Your task to perform on an android device: open a bookmark in the chrome app Image 0: 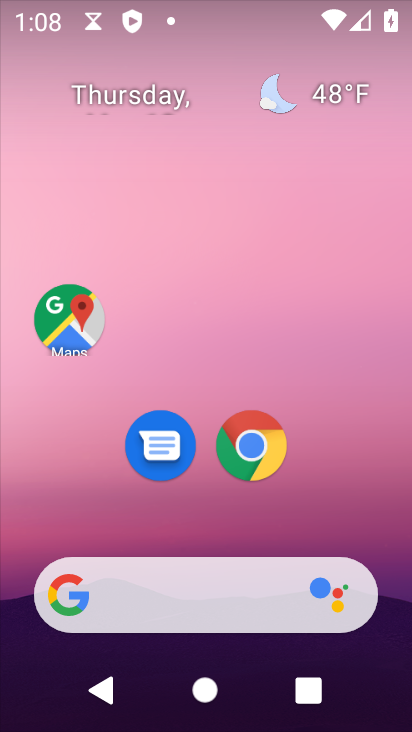
Step 0: click (252, 448)
Your task to perform on an android device: open a bookmark in the chrome app Image 1: 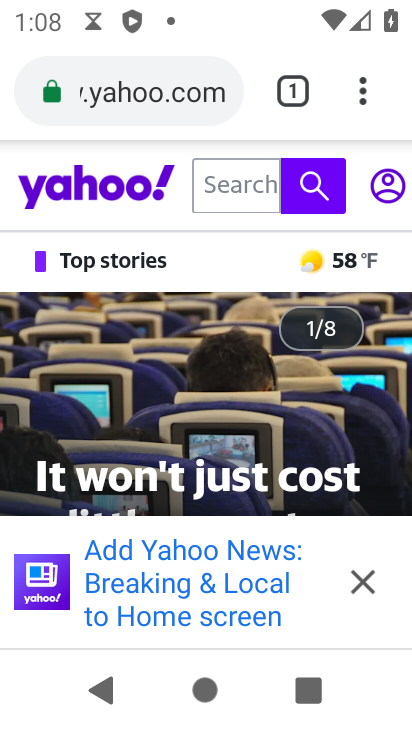
Step 1: click (365, 82)
Your task to perform on an android device: open a bookmark in the chrome app Image 2: 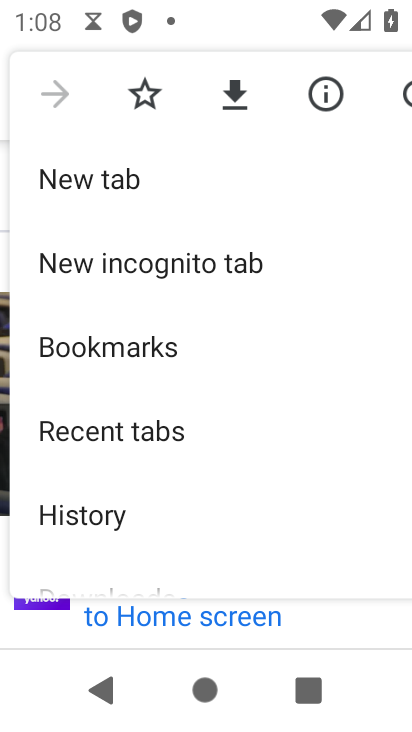
Step 2: click (155, 352)
Your task to perform on an android device: open a bookmark in the chrome app Image 3: 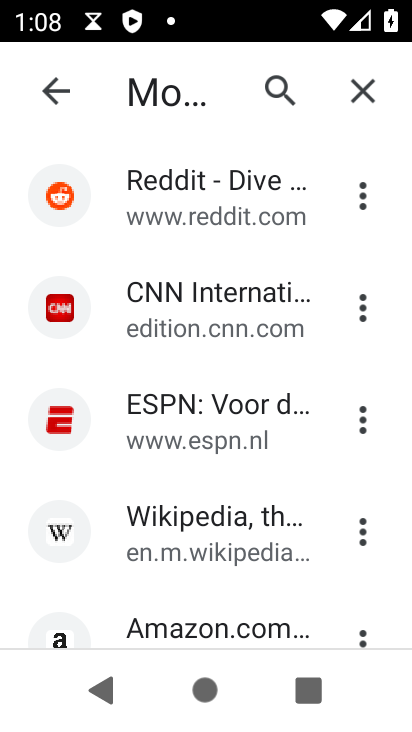
Step 3: click (240, 317)
Your task to perform on an android device: open a bookmark in the chrome app Image 4: 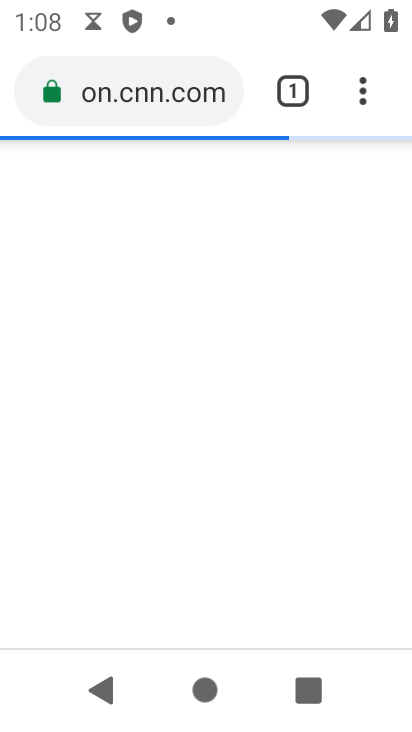
Step 4: task complete